Your task to perform on an android device: set default search engine in the chrome app Image 0: 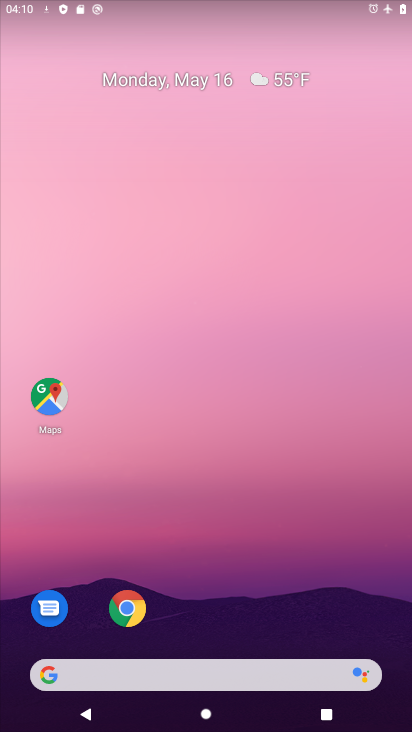
Step 0: click (126, 614)
Your task to perform on an android device: set default search engine in the chrome app Image 1: 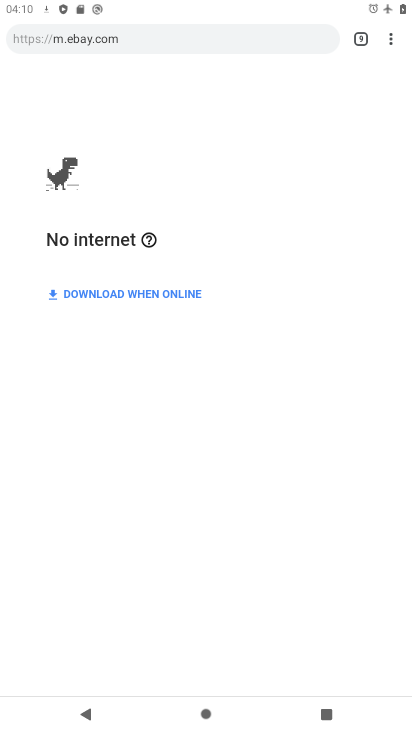
Step 1: click (393, 42)
Your task to perform on an android device: set default search engine in the chrome app Image 2: 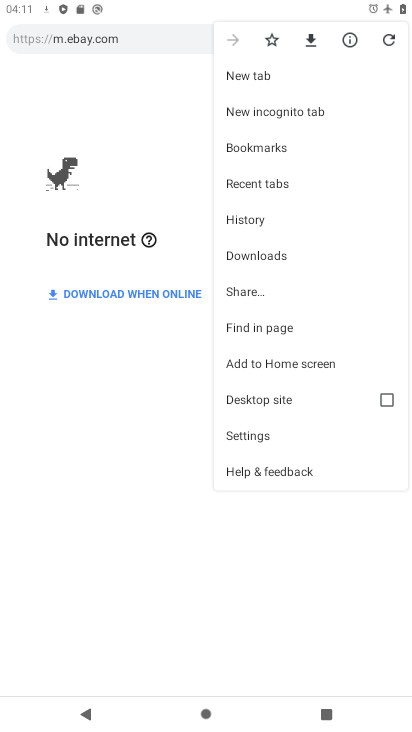
Step 2: click (264, 430)
Your task to perform on an android device: set default search engine in the chrome app Image 3: 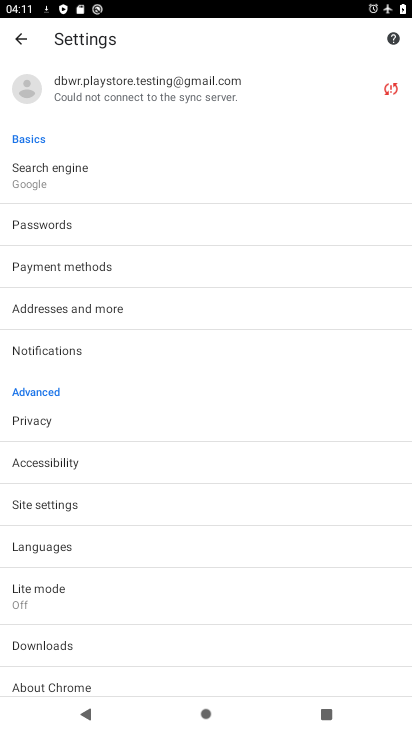
Step 3: click (104, 189)
Your task to perform on an android device: set default search engine in the chrome app Image 4: 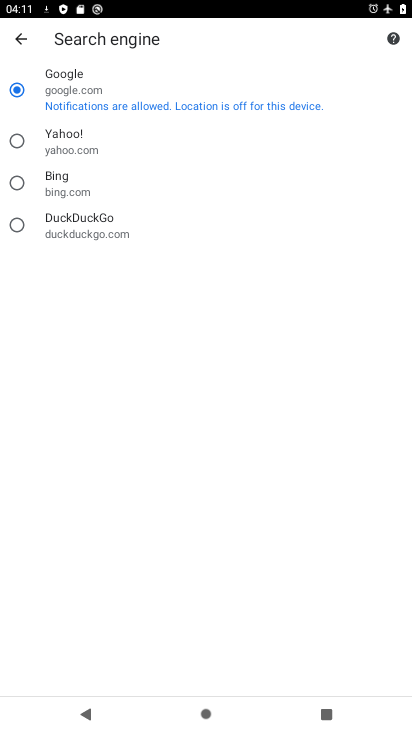
Step 4: click (59, 175)
Your task to perform on an android device: set default search engine in the chrome app Image 5: 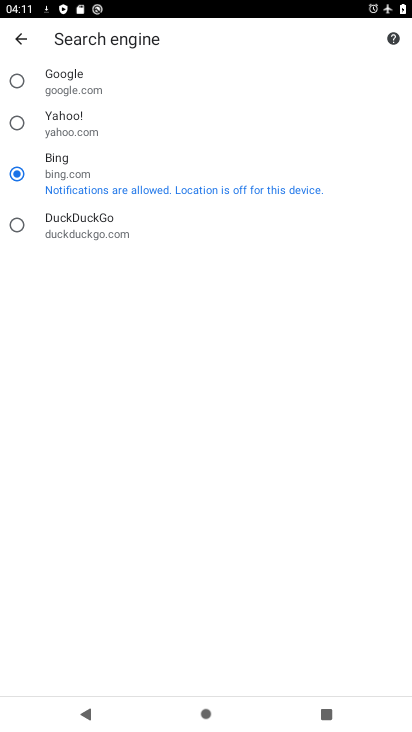
Step 5: task complete